Your task to perform on an android device: Search for a nice rug on Crate & Barrel Image 0: 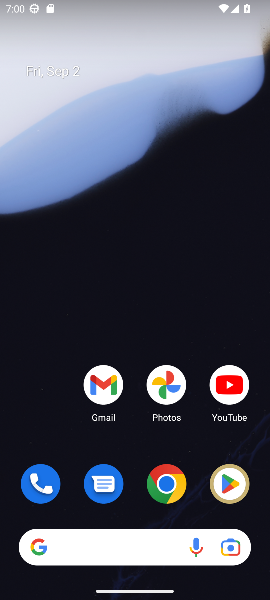
Step 0: click (168, 484)
Your task to perform on an android device: Search for a nice rug on Crate & Barrel Image 1: 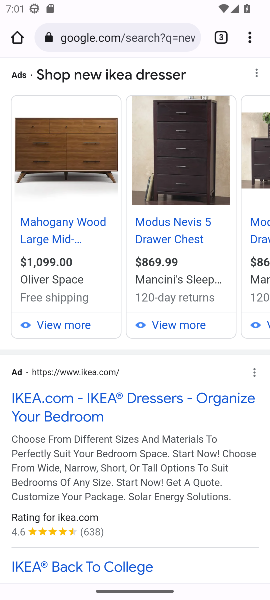
Step 1: click (145, 37)
Your task to perform on an android device: Search for a nice rug on Crate & Barrel Image 2: 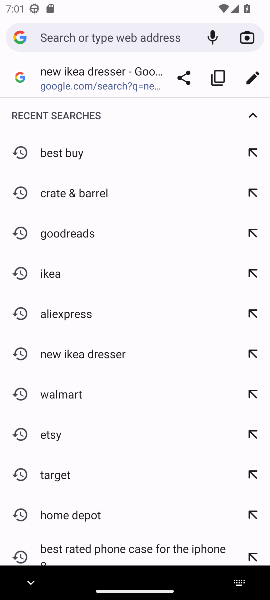
Step 2: type "Crate & Barrel"
Your task to perform on an android device: Search for a nice rug on Crate & Barrel Image 3: 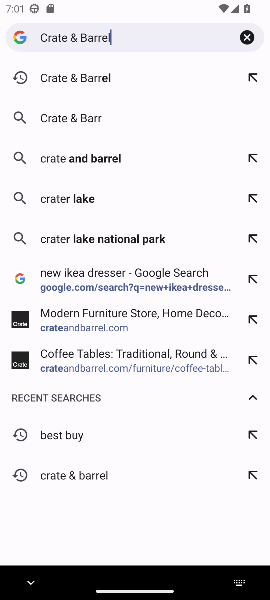
Step 3: press enter
Your task to perform on an android device: Search for a nice rug on Crate & Barrel Image 4: 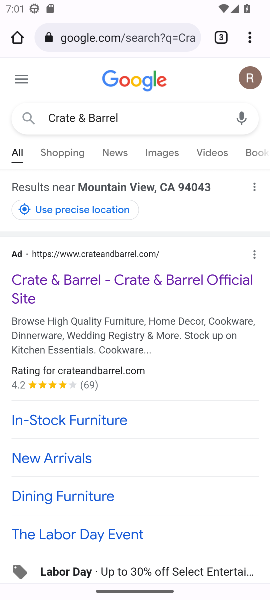
Step 4: drag from (142, 447) to (191, 261)
Your task to perform on an android device: Search for a nice rug on Crate & Barrel Image 5: 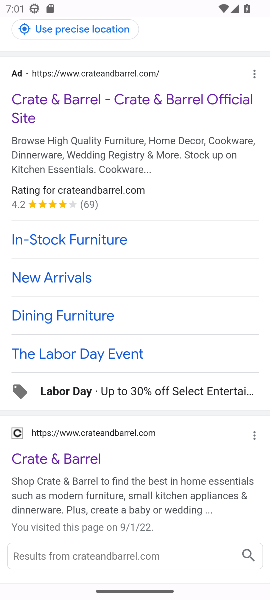
Step 5: click (63, 451)
Your task to perform on an android device: Search for a nice rug on Crate & Barrel Image 6: 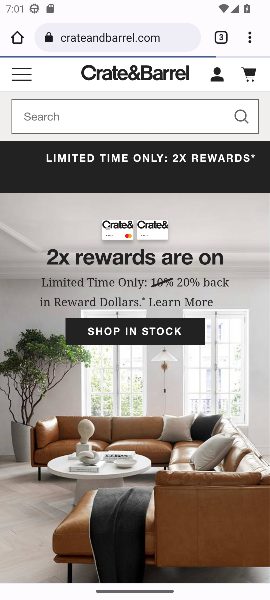
Step 6: click (112, 110)
Your task to perform on an android device: Search for a nice rug on Crate & Barrel Image 7: 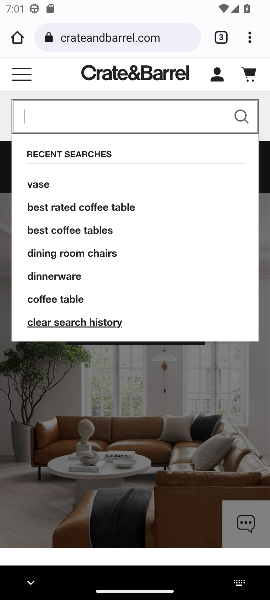
Step 7: type "nice rug"
Your task to perform on an android device: Search for a nice rug on Crate & Barrel Image 8: 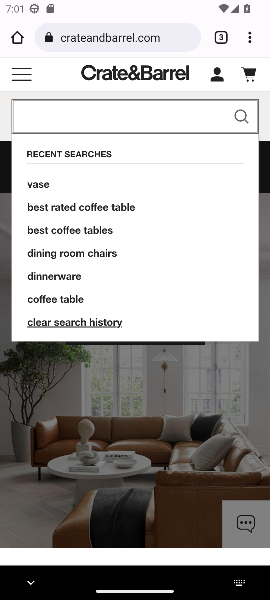
Step 8: press enter
Your task to perform on an android device: Search for a nice rug on Crate & Barrel Image 9: 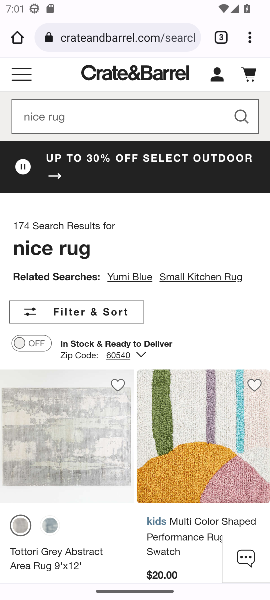
Step 9: drag from (134, 475) to (259, 259)
Your task to perform on an android device: Search for a nice rug on Crate & Barrel Image 10: 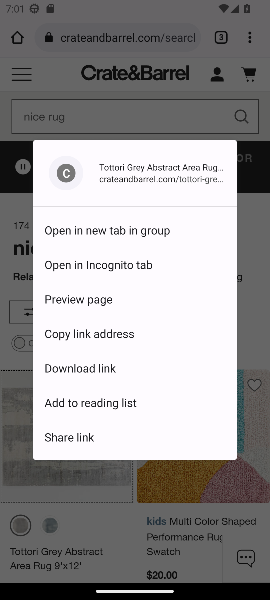
Step 10: click (261, 334)
Your task to perform on an android device: Search for a nice rug on Crate & Barrel Image 11: 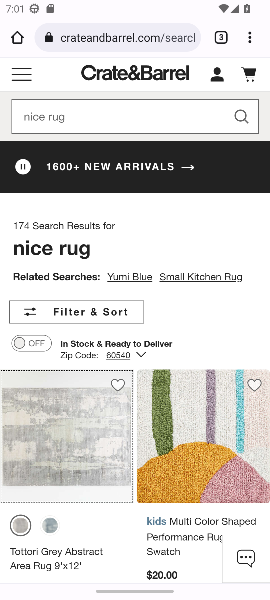
Step 11: task complete